Your task to perform on an android device: Open the stopwatch Image 0: 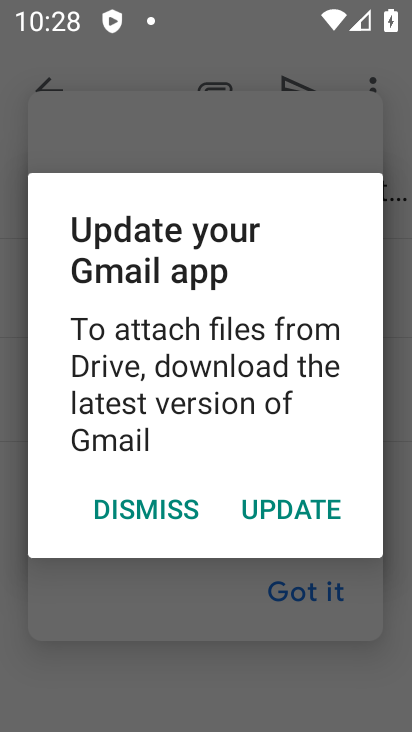
Step 0: press home button
Your task to perform on an android device: Open the stopwatch Image 1: 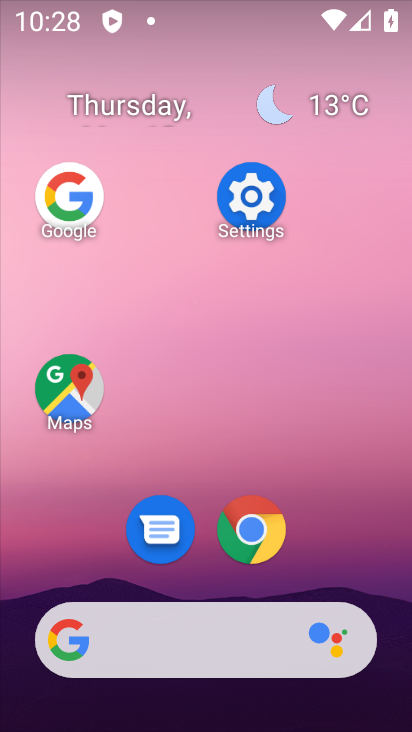
Step 1: drag from (323, 598) to (384, 247)
Your task to perform on an android device: Open the stopwatch Image 2: 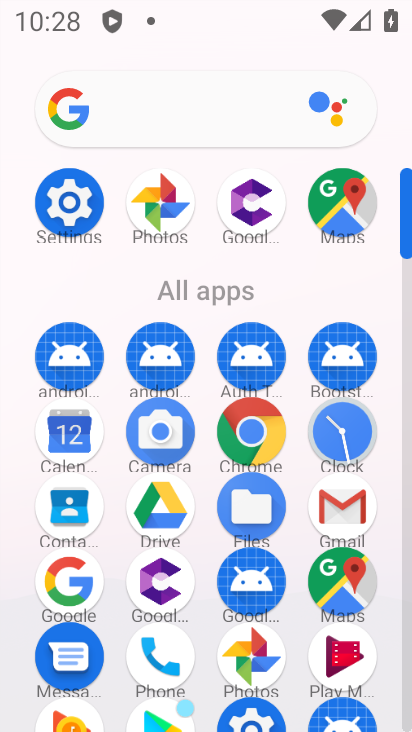
Step 2: drag from (194, 462) to (201, 247)
Your task to perform on an android device: Open the stopwatch Image 3: 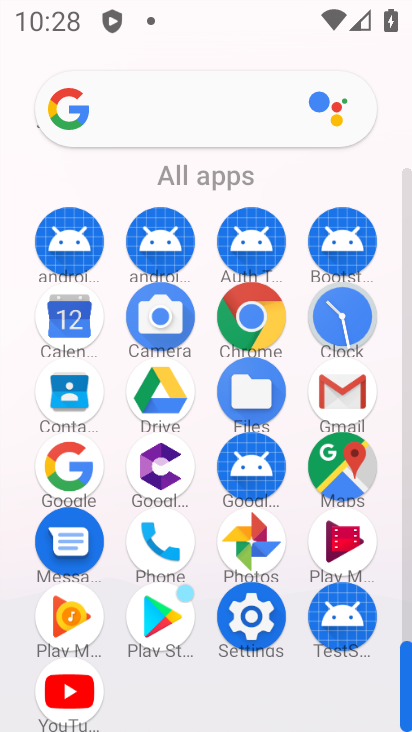
Step 3: click (356, 320)
Your task to perform on an android device: Open the stopwatch Image 4: 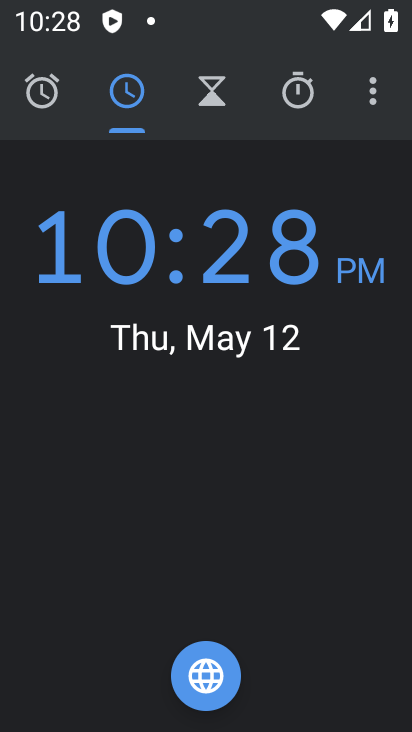
Step 4: click (294, 110)
Your task to perform on an android device: Open the stopwatch Image 5: 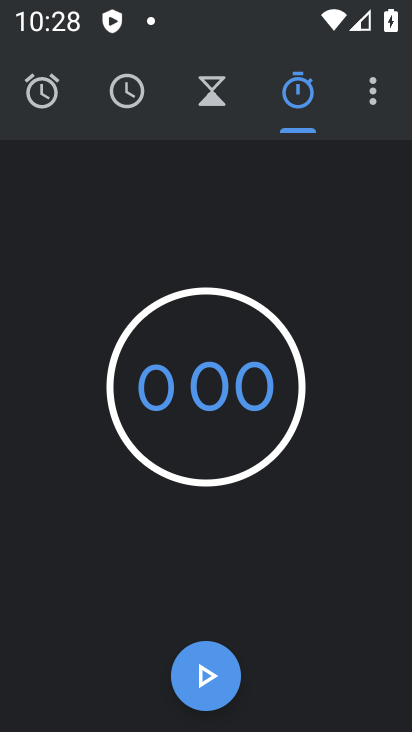
Step 5: task complete